Your task to perform on an android device: turn vacation reply on in the gmail app Image 0: 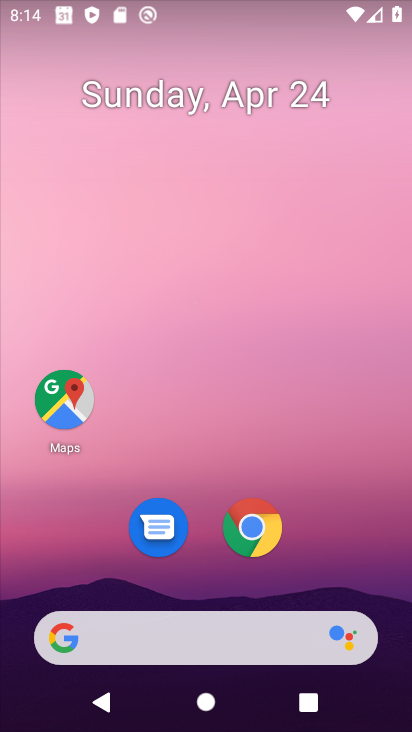
Step 0: drag from (399, 600) to (370, 0)
Your task to perform on an android device: turn vacation reply on in the gmail app Image 1: 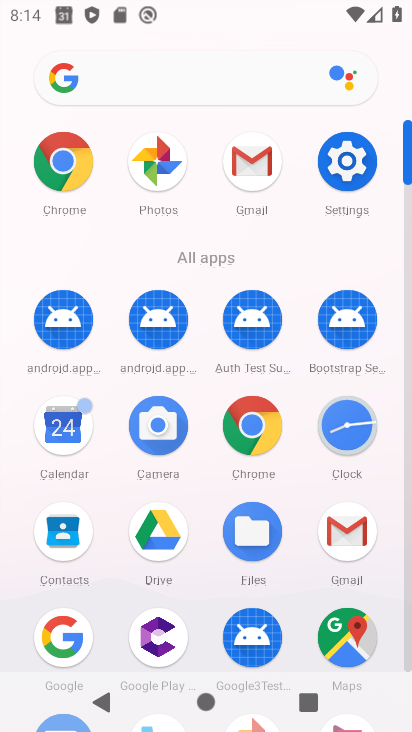
Step 1: click (244, 169)
Your task to perform on an android device: turn vacation reply on in the gmail app Image 2: 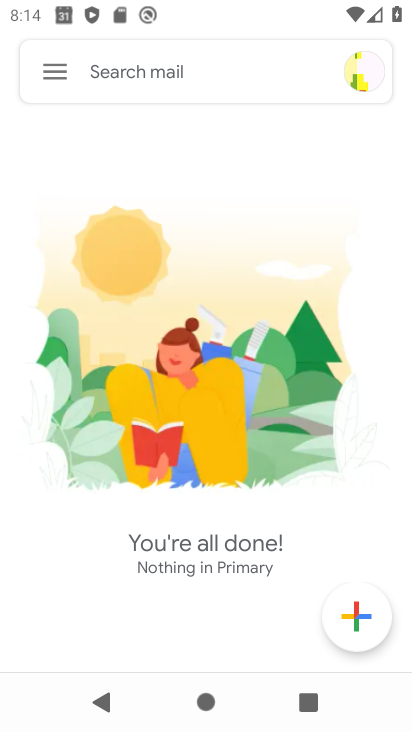
Step 2: click (47, 74)
Your task to perform on an android device: turn vacation reply on in the gmail app Image 3: 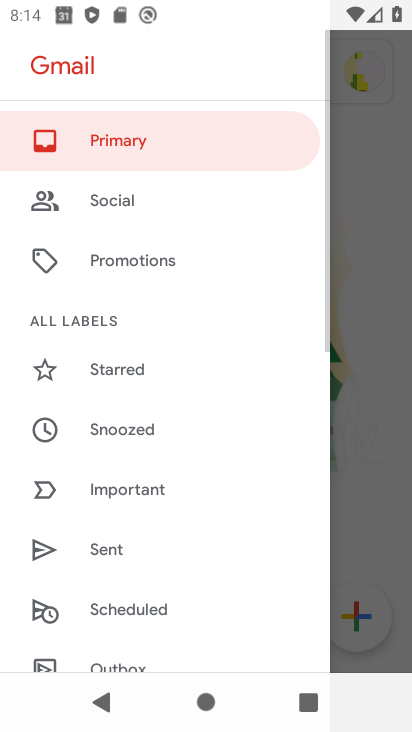
Step 3: drag from (235, 557) to (202, 108)
Your task to perform on an android device: turn vacation reply on in the gmail app Image 4: 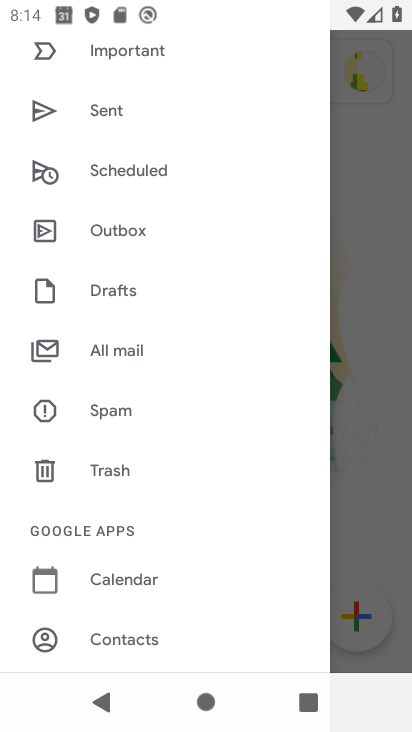
Step 4: drag from (256, 529) to (247, 80)
Your task to perform on an android device: turn vacation reply on in the gmail app Image 5: 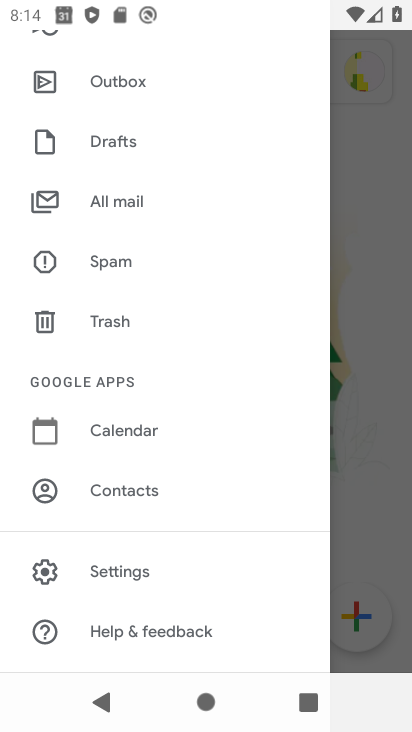
Step 5: click (117, 573)
Your task to perform on an android device: turn vacation reply on in the gmail app Image 6: 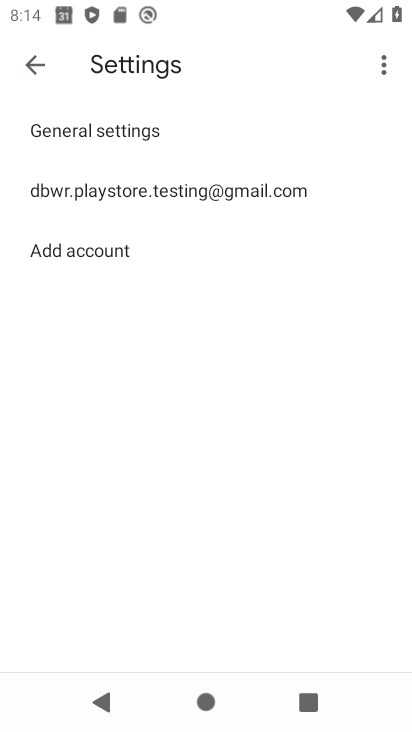
Step 6: click (116, 196)
Your task to perform on an android device: turn vacation reply on in the gmail app Image 7: 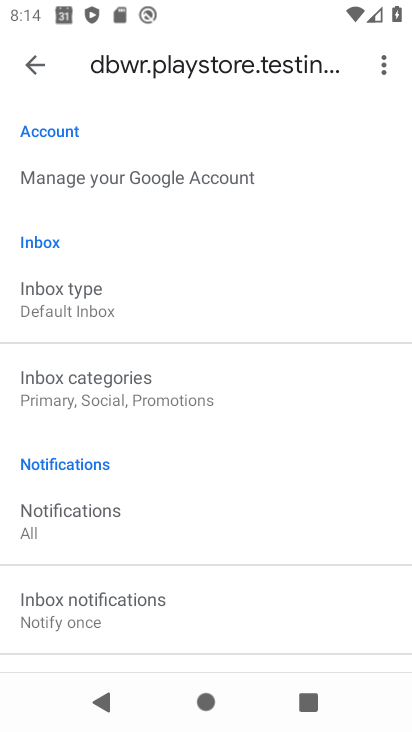
Step 7: drag from (293, 565) to (277, 54)
Your task to perform on an android device: turn vacation reply on in the gmail app Image 8: 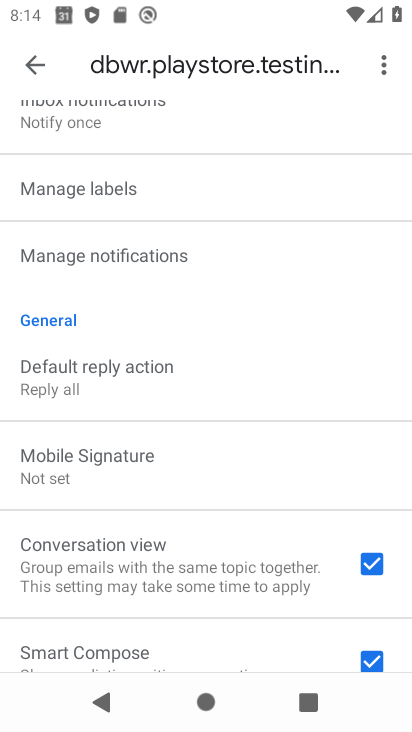
Step 8: drag from (224, 482) to (217, 1)
Your task to perform on an android device: turn vacation reply on in the gmail app Image 9: 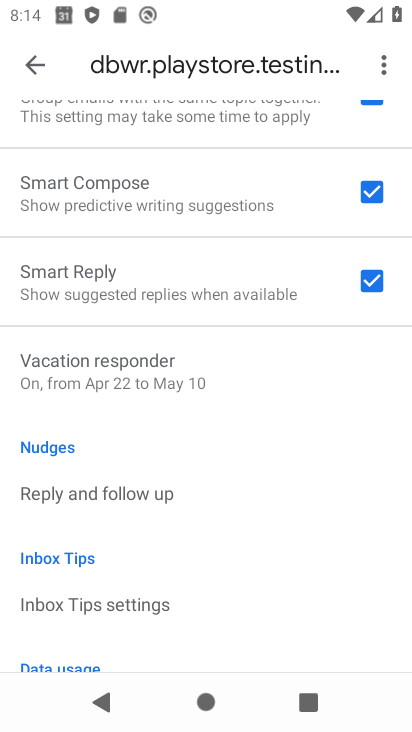
Step 9: click (78, 388)
Your task to perform on an android device: turn vacation reply on in the gmail app Image 10: 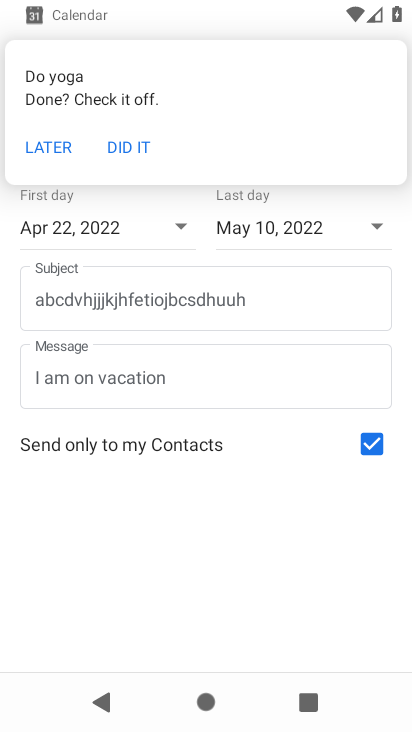
Step 10: click (58, 151)
Your task to perform on an android device: turn vacation reply on in the gmail app Image 11: 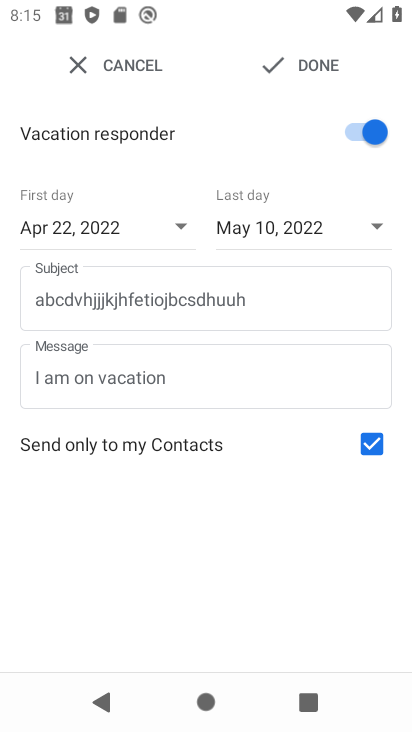
Step 11: click (307, 57)
Your task to perform on an android device: turn vacation reply on in the gmail app Image 12: 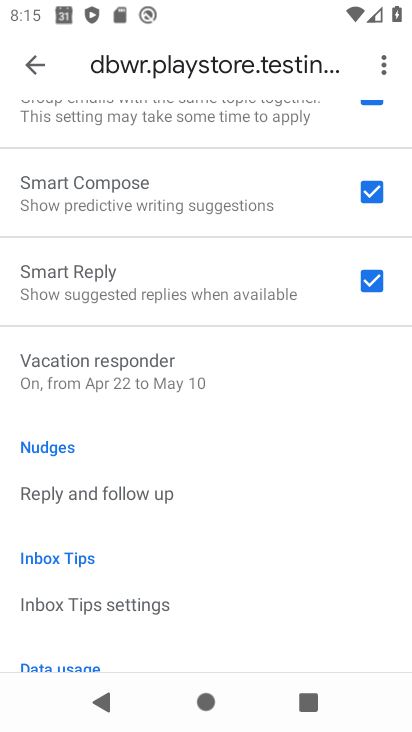
Step 12: task complete